Your task to perform on an android device: turn on location history Image 0: 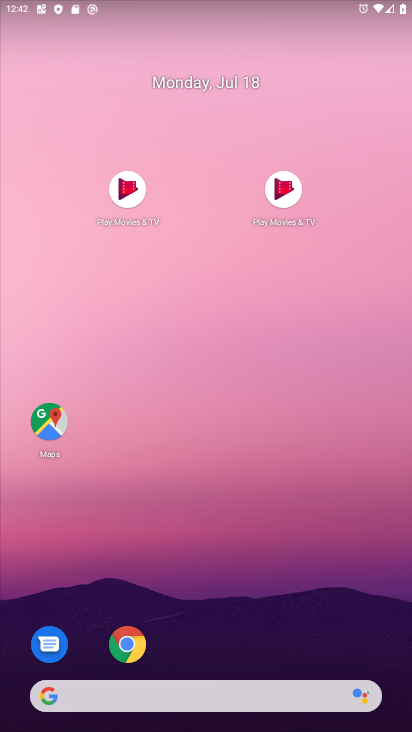
Step 0: drag from (304, 316) to (268, 5)
Your task to perform on an android device: turn on location history Image 1: 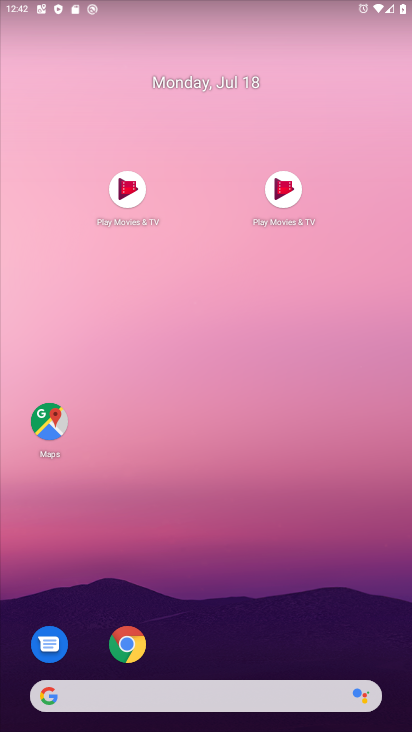
Step 1: drag from (246, 355) to (247, 163)
Your task to perform on an android device: turn on location history Image 2: 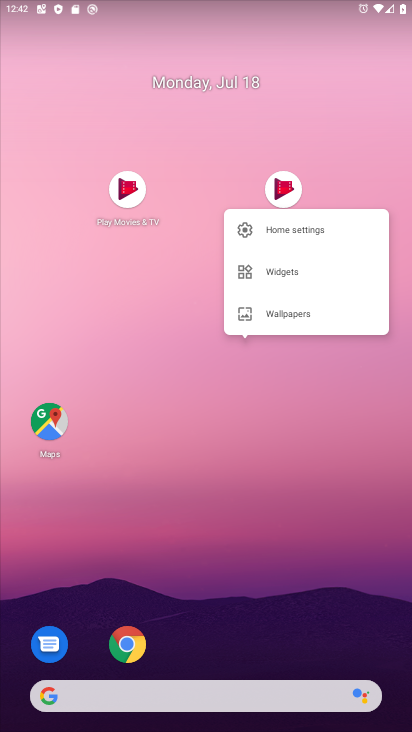
Step 2: click (252, 579)
Your task to perform on an android device: turn on location history Image 3: 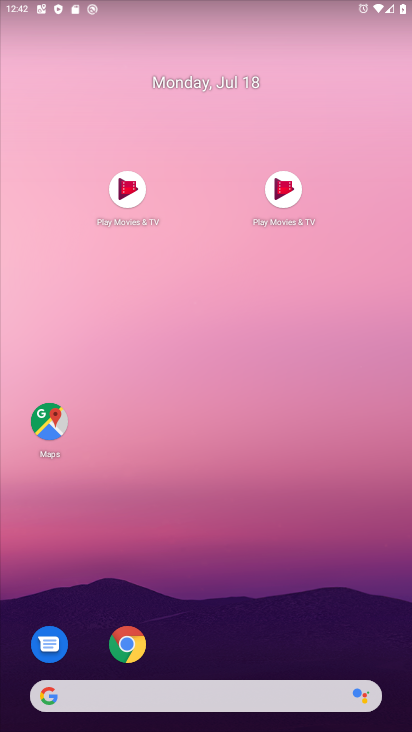
Step 3: drag from (217, 651) to (169, 141)
Your task to perform on an android device: turn on location history Image 4: 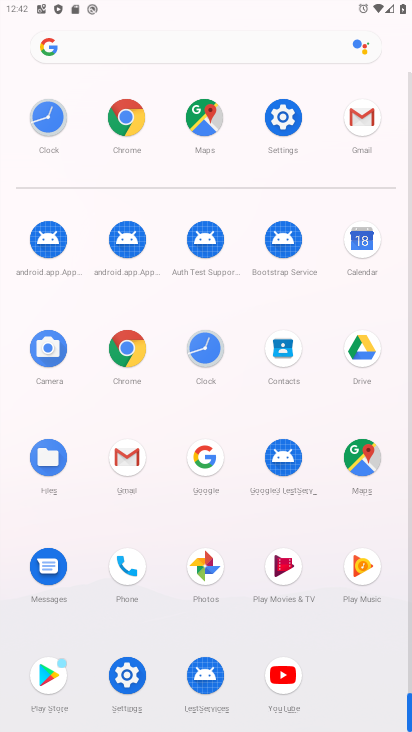
Step 4: click (287, 123)
Your task to perform on an android device: turn on location history Image 5: 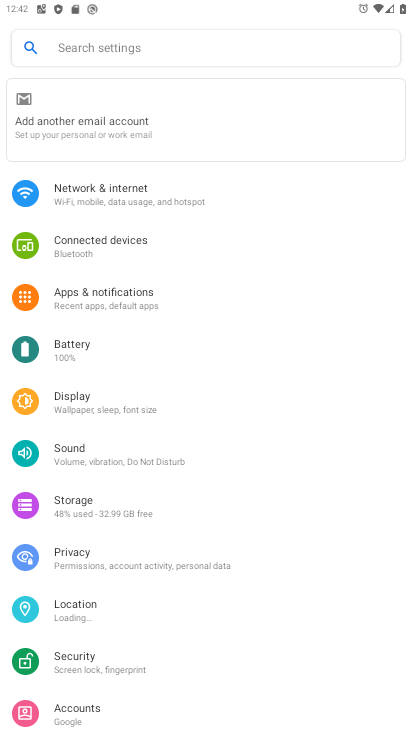
Step 5: click (290, 110)
Your task to perform on an android device: turn on location history Image 6: 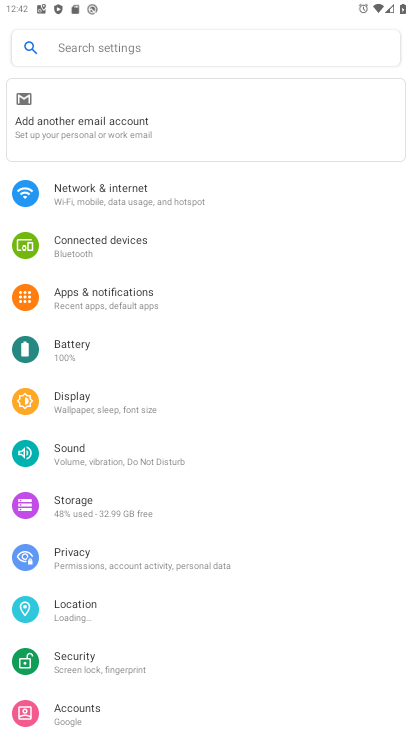
Step 6: click (284, 121)
Your task to perform on an android device: turn on location history Image 7: 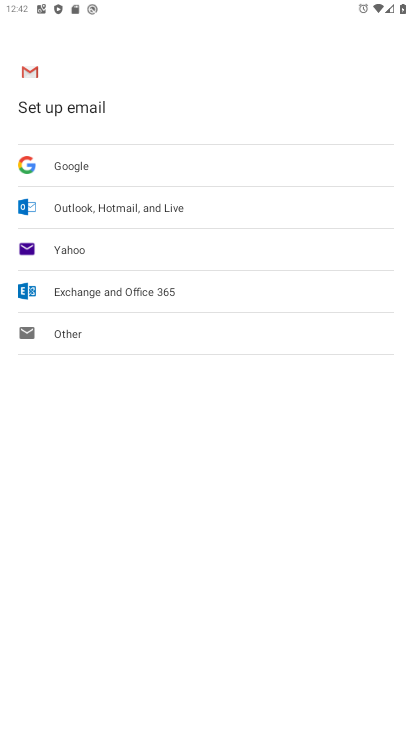
Step 7: press back button
Your task to perform on an android device: turn on location history Image 8: 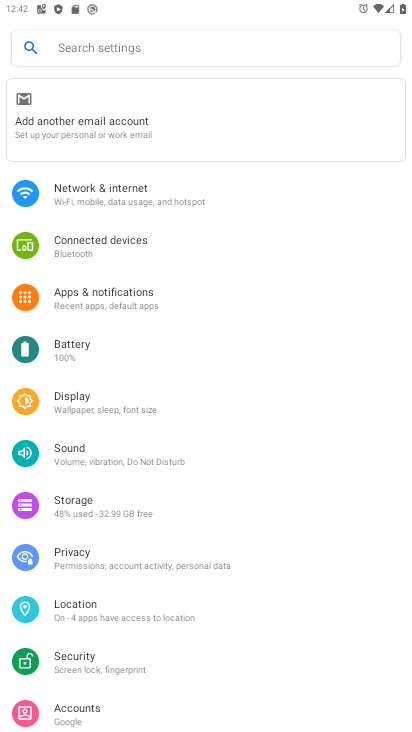
Step 8: click (181, 610)
Your task to perform on an android device: turn on location history Image 9: 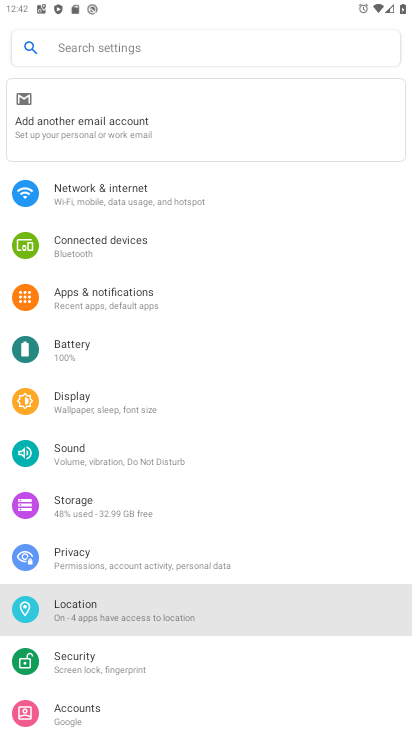
Step 9: click (95, 617)
Your task to perform on an android device: turn on location history Image 10: 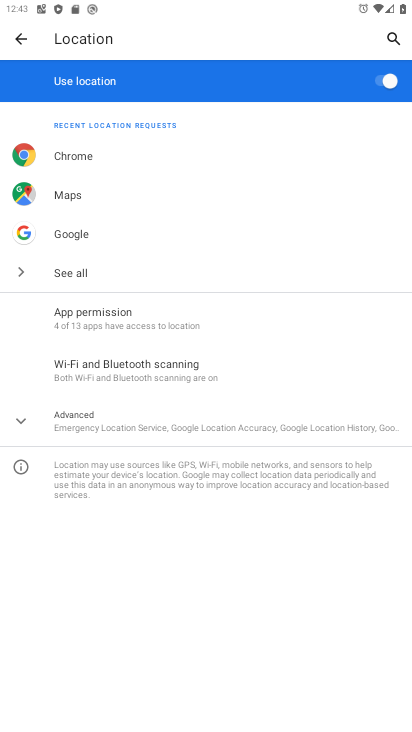
Step 10: click (120, 429)
Your task to perform on an android device: turn on location history Image 11: 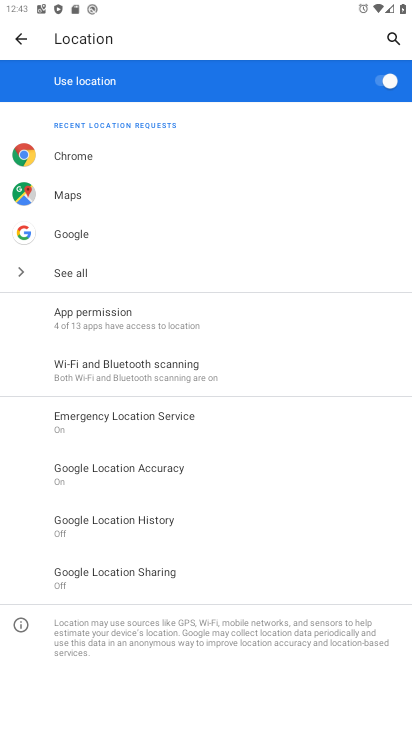
Step 11: click (167, 521)
Your task to perform on an android device: turn on location history Image 12: 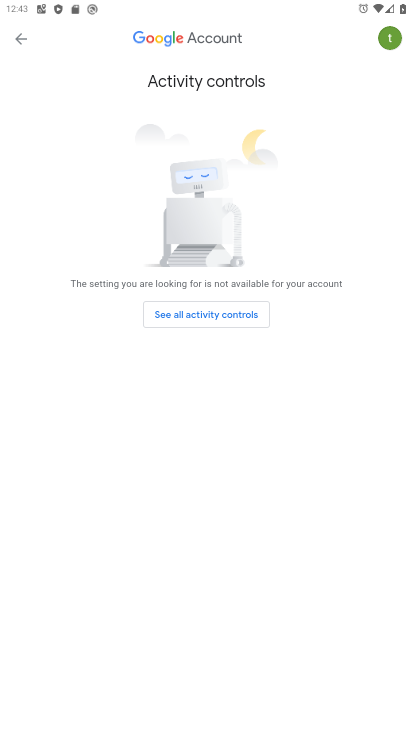
Step 12: task complete